Your task to perform on an android device: delete browsing data in the chrome app Image 0: 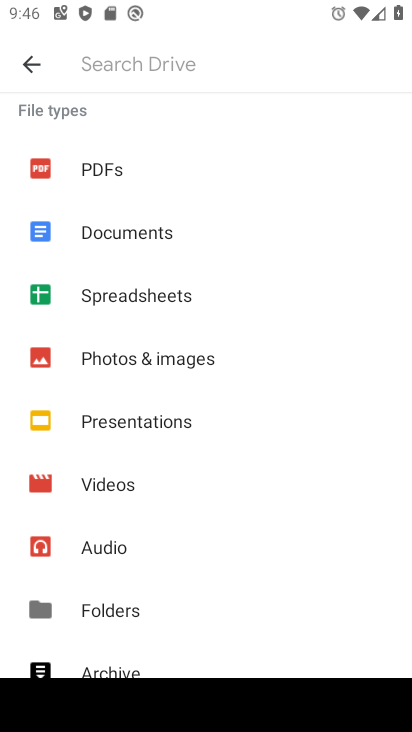
Step 0: press home button
Your task to perform on an android device: delete browsing data in the chrome app Image 1: 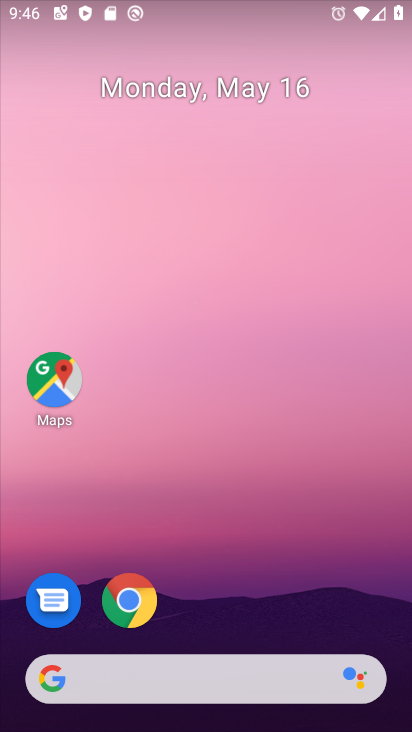
Step 1: drag from (200, 613) to (218, 74)
Your task to perform on an android device: delete browsing data in the chrome app Image 2: 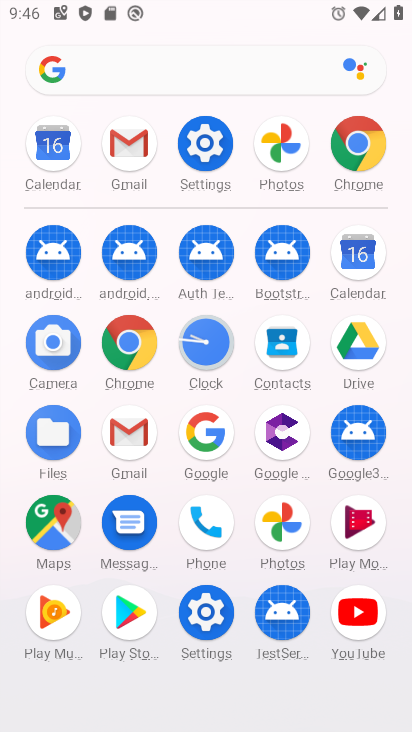
Step 2: click (132, 341)
Your task to perform on an android device: delete browsing data in the chrome app Image 3: 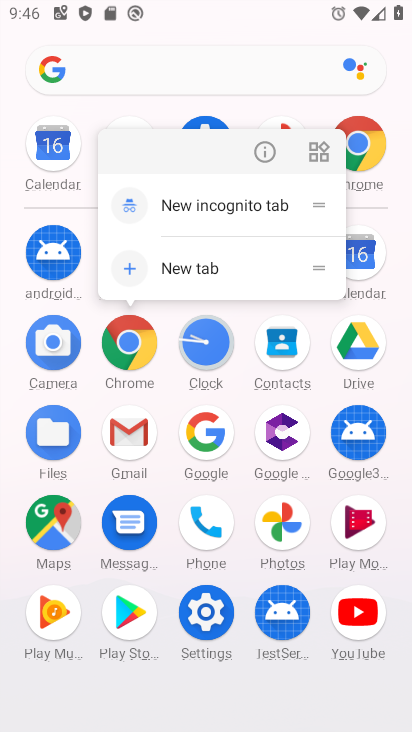
Step 3: click (274, 154)
Your task to perform on an android device: delete browsing data in the chrome app Image 4: 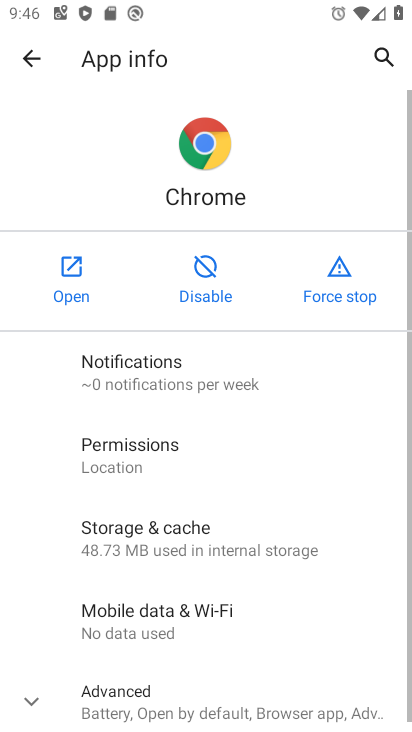
Step 4: click (76, 279)
Your task to perform on an android device: delete browsing data in the chrome app Image 5: 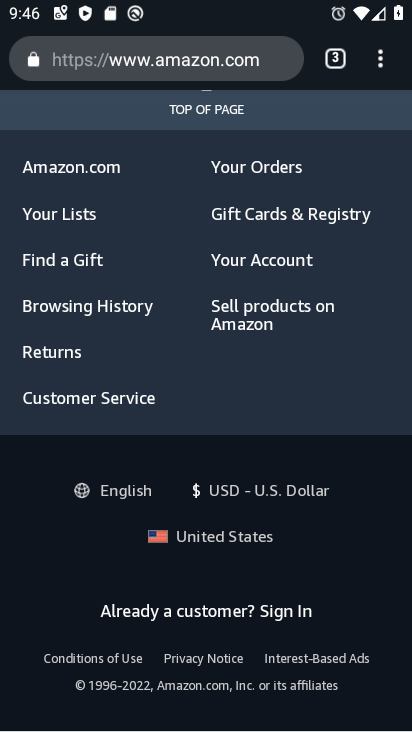
Step 5: drag from (205, 153) to (178, 647)
Your task to perform on an android device: delete browsing data in the chrome app Image 6: 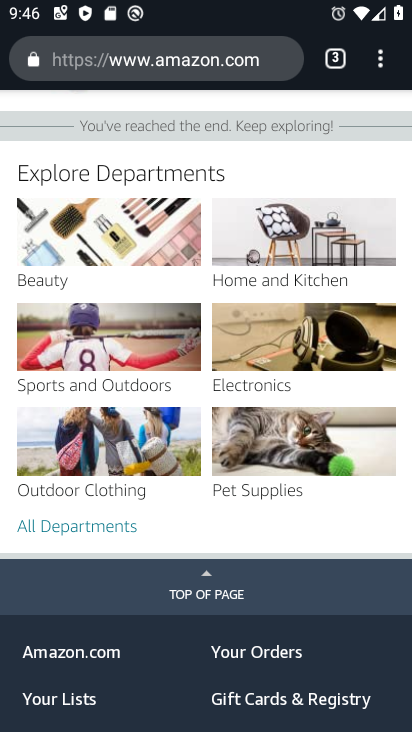
Step 6: drag from (249, 230) to (244, 660)
Your task to perform on an android device: delete browsing data in the chrome app Image 7: 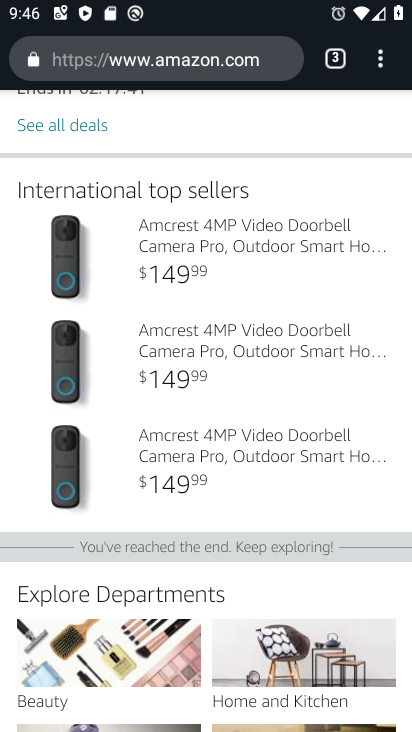
Step 7: drag from (383, 56) to (228, 326)
Your task to perform on an android device: delete browsing data in the chrome app Image 8: 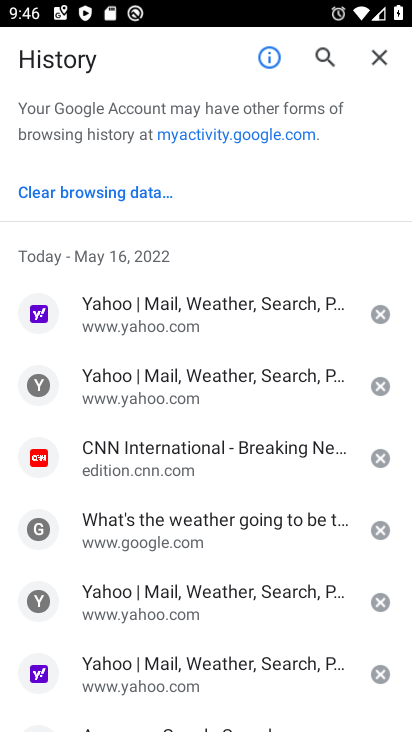
Step 8: click (106, 194)
Your task to perform on an android device: delete browsing data in the chrome app Image 9: 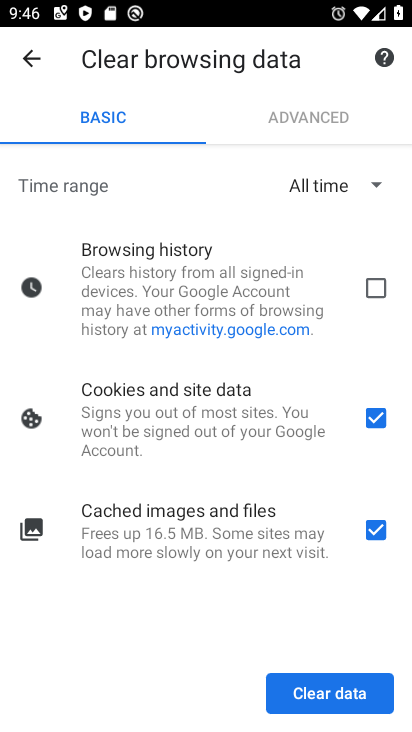
Step 9: click (356, 680)
Your task to perform on an android device: delete browsing data in the chrome app Image 10: 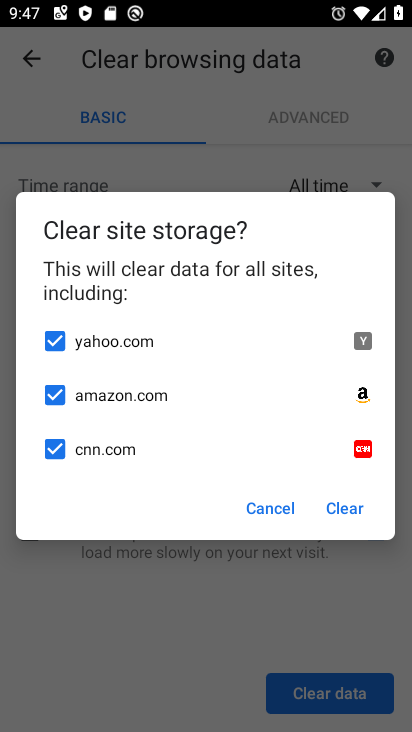
Step 10: click (264, 507)
Your task to perform on an android device: delete browsing data in the chrome app Image 11: 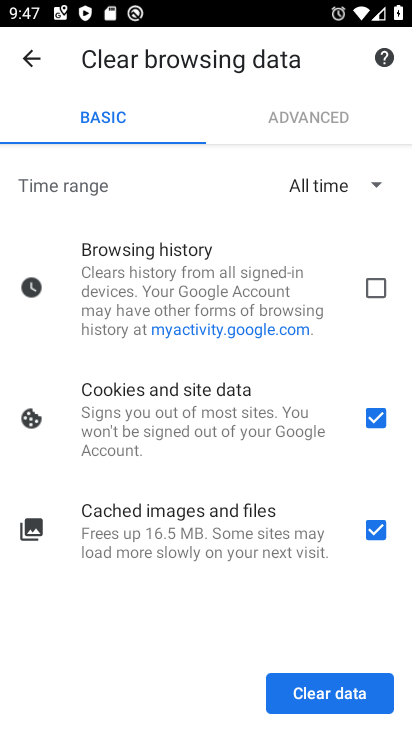
Step 11: click (374, 285)
Your task to perform on an android device: delete browsing data in the chrome app Image 12: 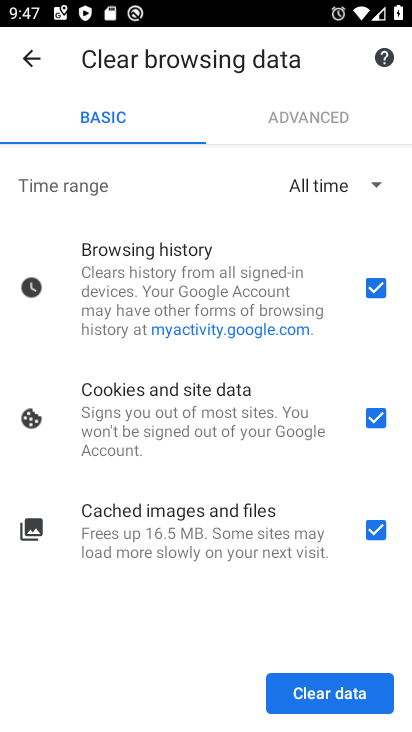
Step 12: click (313, 700)
Your task to perform on an android device: delete browsing data in the chrome app Image 13: 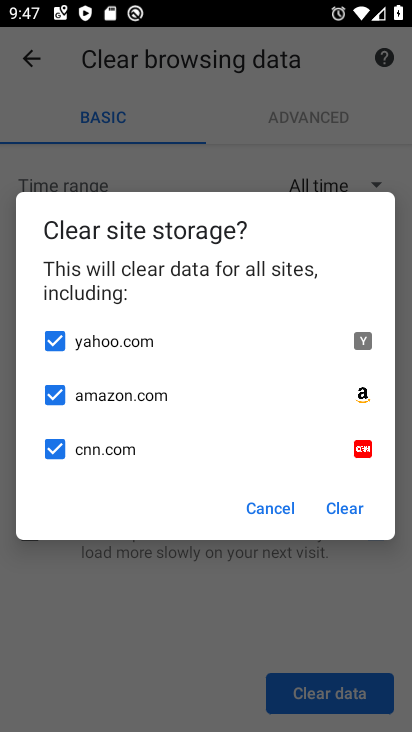
Step 13: click (350, 510)
Your task to perform on an android device: delete browsing data in the chrome app Image 14: 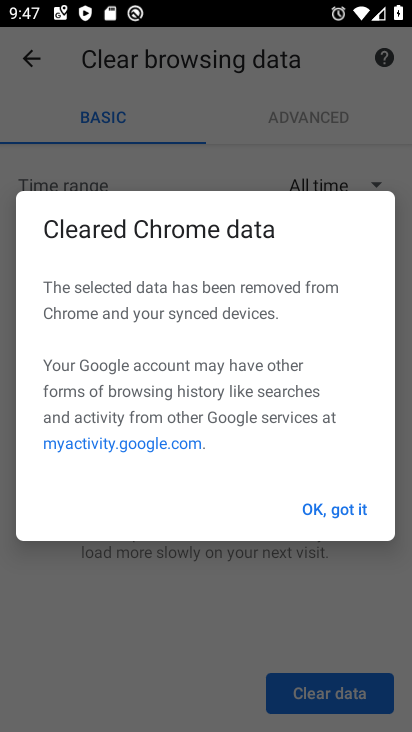
Step 14: click (339, 503)
Your task to perform on an android device: delete browsing data in the chrome app Image 15: 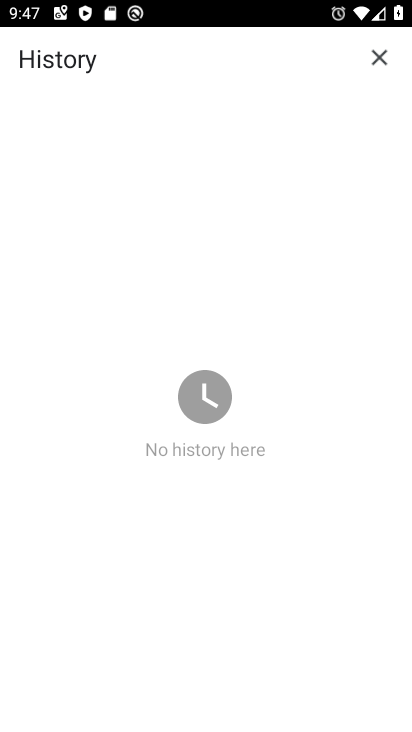
Step 15: task complete